Your task to perform on an android device: uninstall "Facebook Messenger" Image 0: 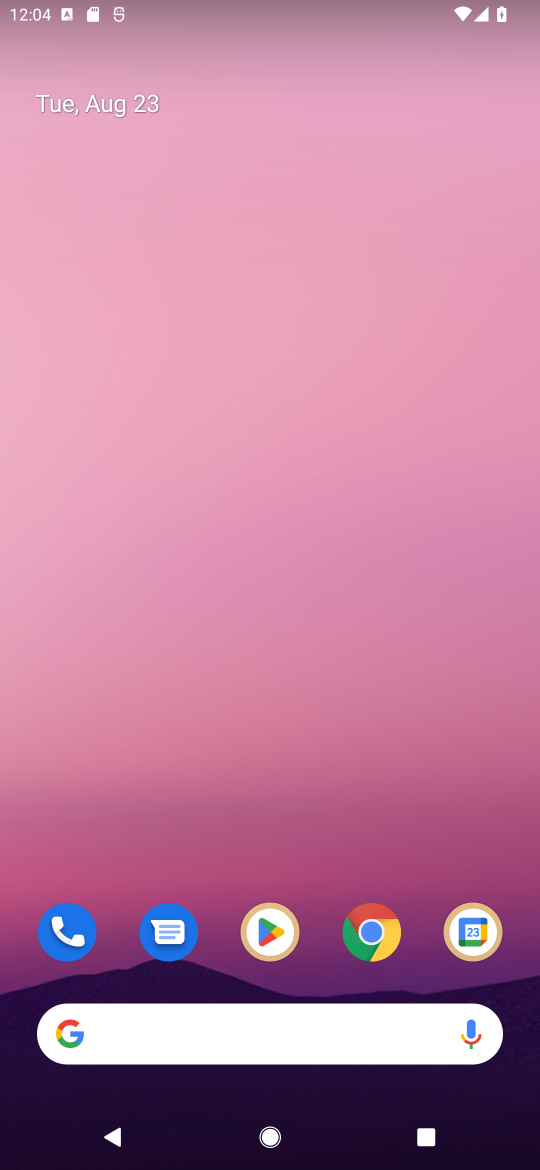
Step 0: click (278, 946)
Your task to perform on an android device: uninstall "Facebook Messenger" Image 1: 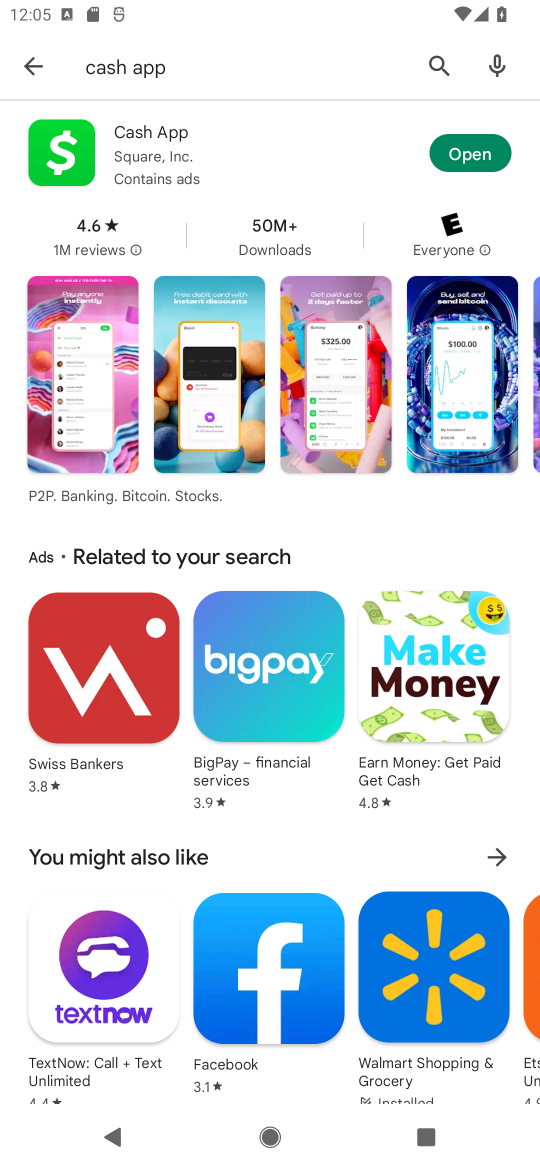
Step 1: click (439, 64)
Your task to perform on an android device: uninstall "Facebook Messenger" Image 2: 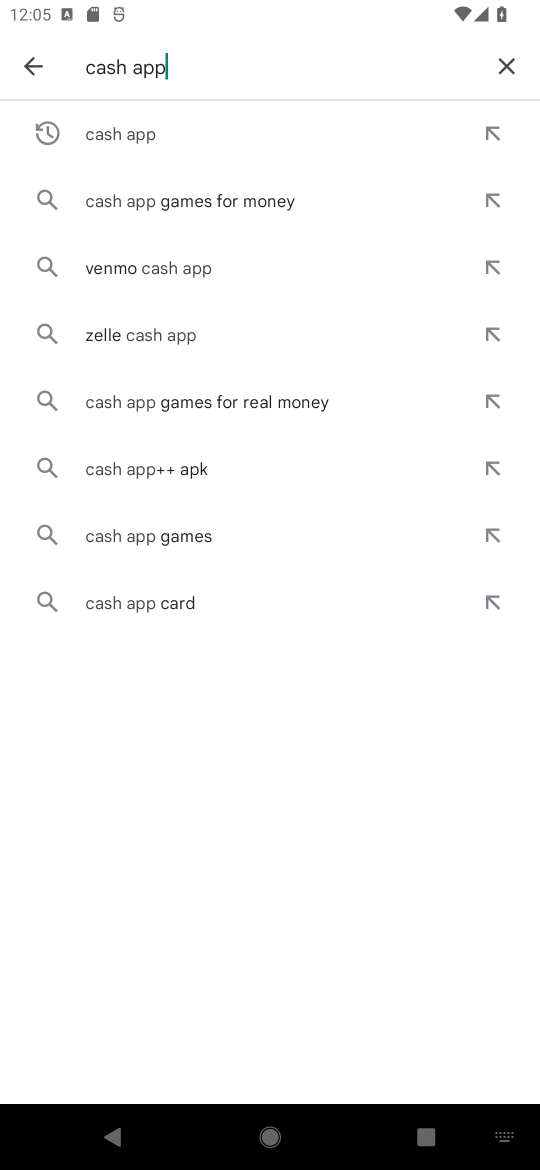
Step 2: click (500, 62)
Your task to perform on an android device: uninstall "Facebook Messenger" Image 3: 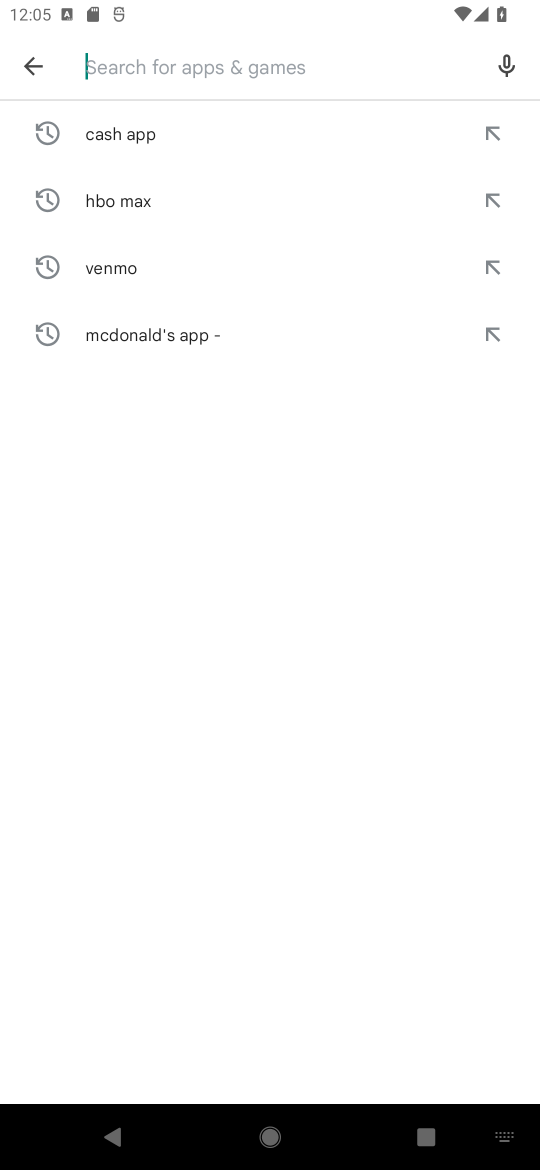
Step 3: click (183, 60)
Your task to perform on an android device: uninstall "Facebook Messenger" Image 4: 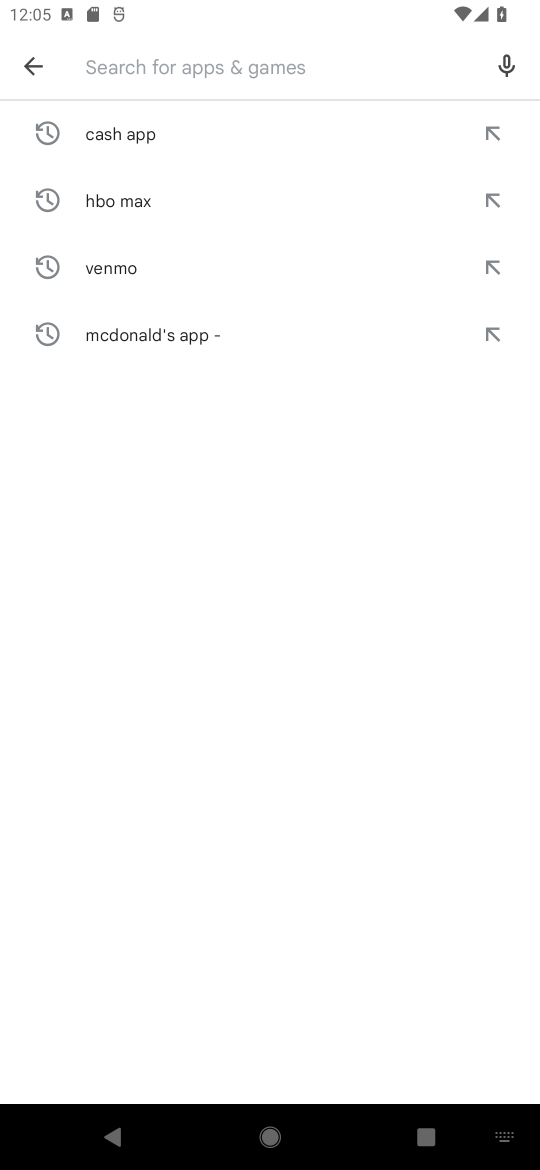
Step 4: type "Facebook Messenger"
Your task to perform on an android device: uninstall "Facebook Messenger" Image 5: 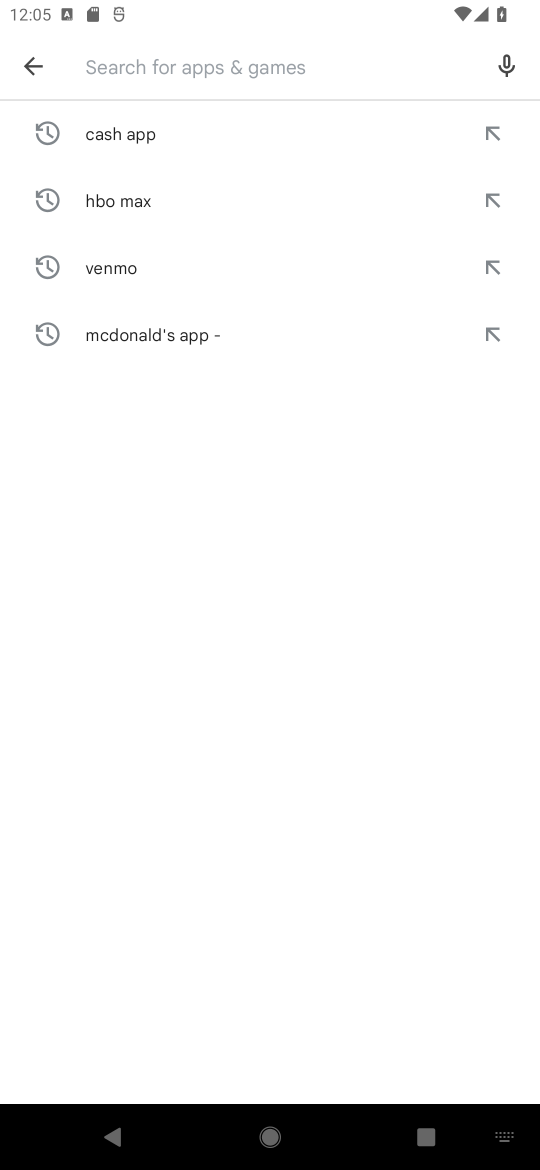
Step 5: click (373, 689)
Your task to perform on an android device: uninstall "Facebook Messenger" Image 6: 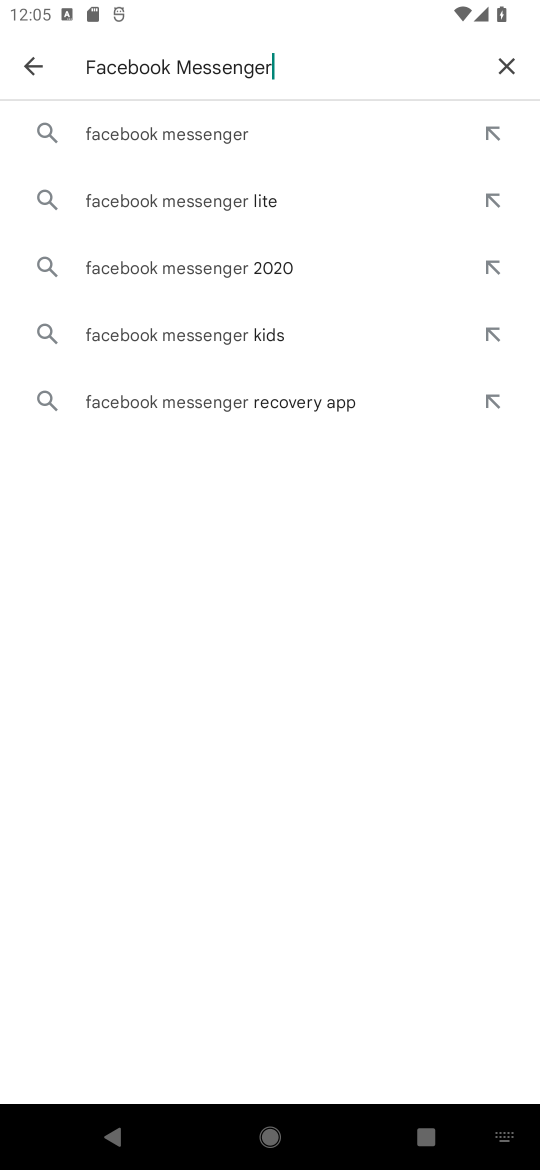
Step 6: click (200, 130)
Your task to perform on an android device: uninstall "Facebook Messenger" Image 7: 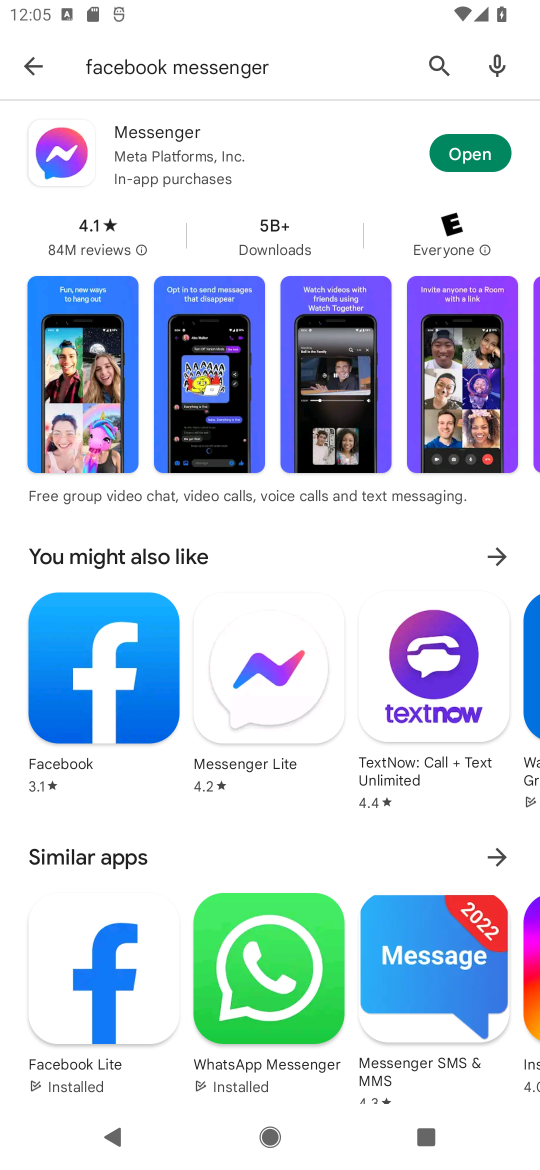
Step 7: click (197, 130)
Your task to perform on an android device: uninstall "Facebook Messenger" Image 8: 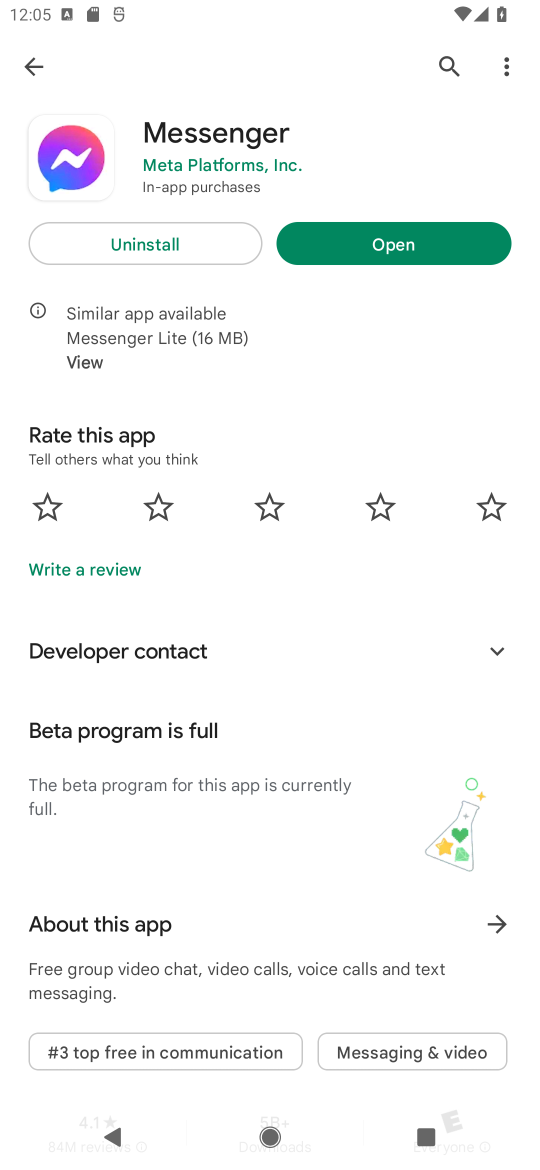
Step 8: click (165, 237)
Your task to perform on an android device: uninstall "Facebook Messenger" Image 9: 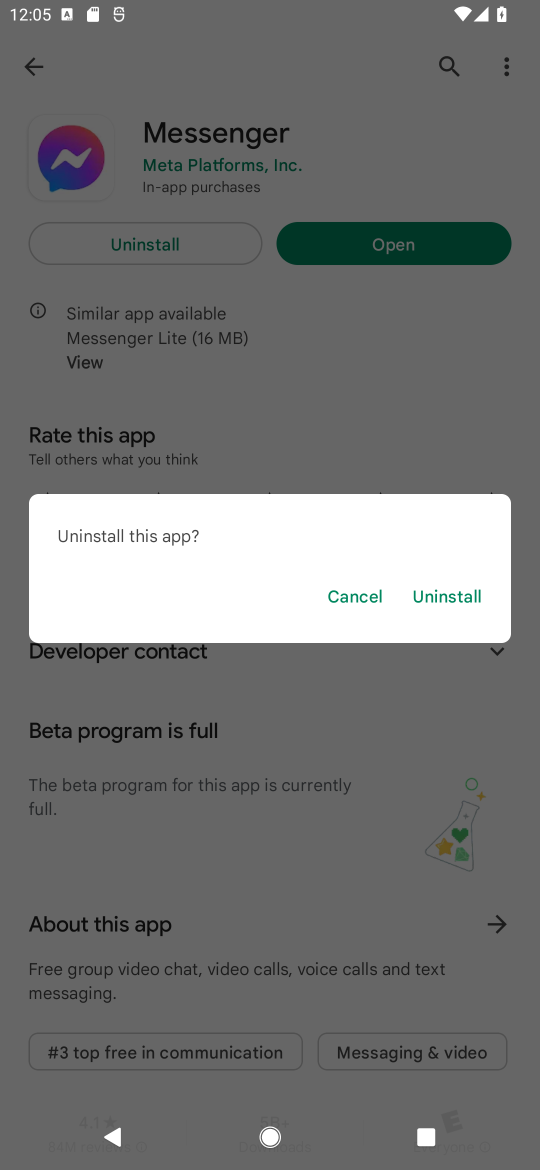
Step 9: click (475, 600)
Your task to perform on an android device: uninstall "Facebook Messenger" Image 10: 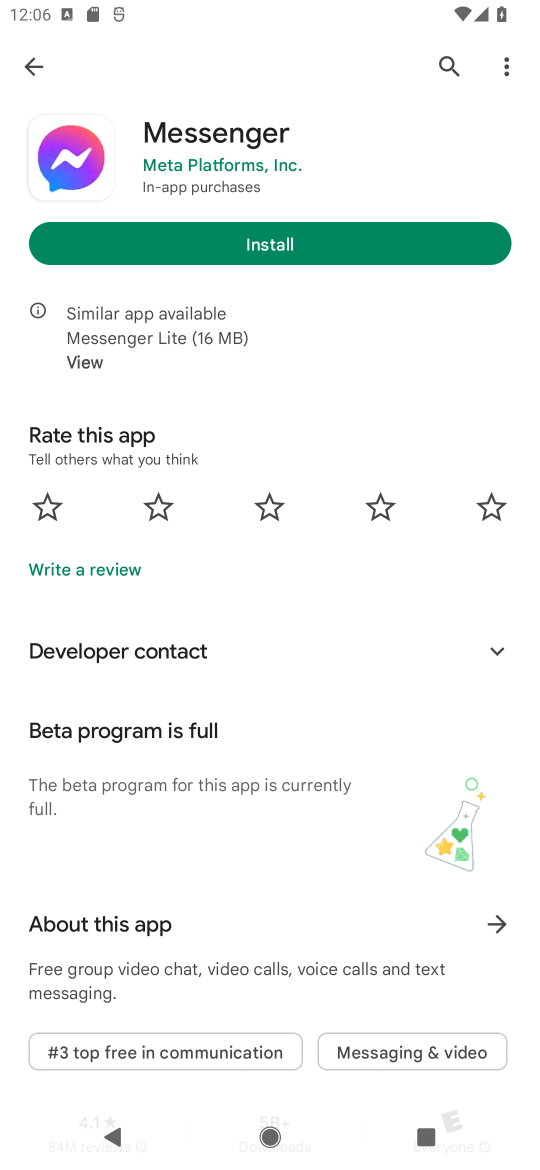
Step 10: task complete